Your task to perform on an android device: change alarm snooze length Image 0: 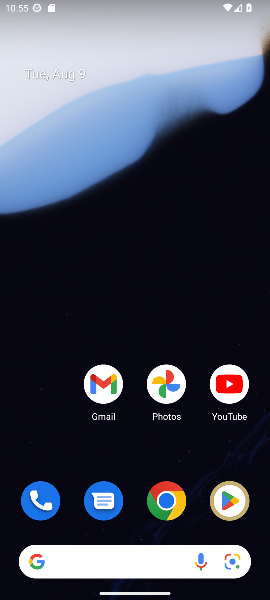
Step 0: drag from (135, 414) to (135, 39)
Your task to perform on an android device: change alarm snooze length Image 1: 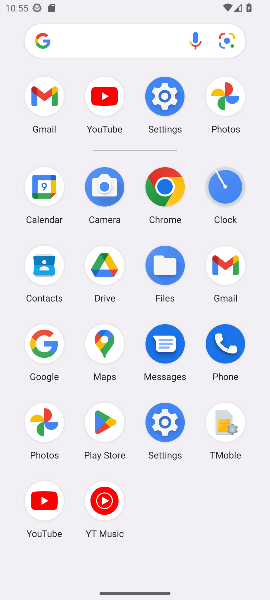
Step 1: click (224, 190)
Your task to perform on an android device: change alarm snooze length Image 2: 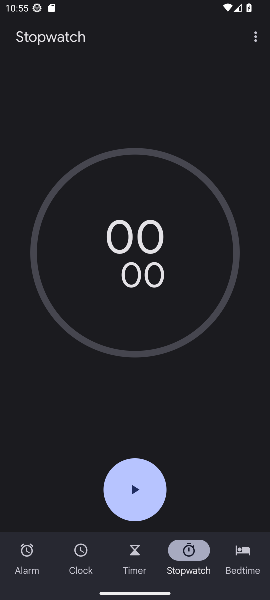
Step 2: click (257, 42)
Your task to perform on an android device: change alarm snooze length Image 3: 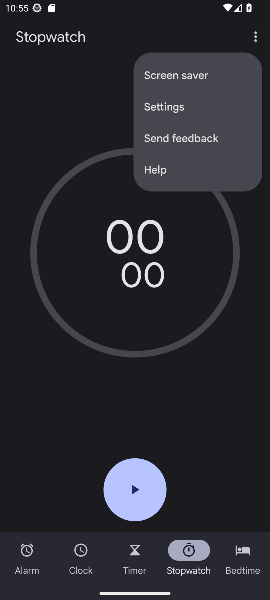
Step 3: click (169, 105)
Your task to perform on an android device: change alarm snooze length Image 4: 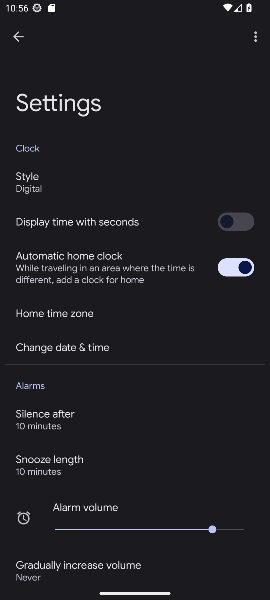
Step 4: click (72, 472)
Your task to perform on an android device: change alarm snooze length Image 5: 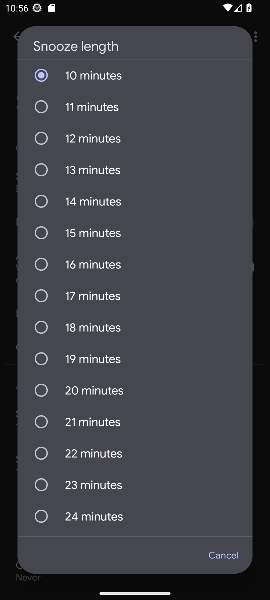
Step 5: click (44, 140)
Your task to perform on an android device: change alarm snooze length Image 6: 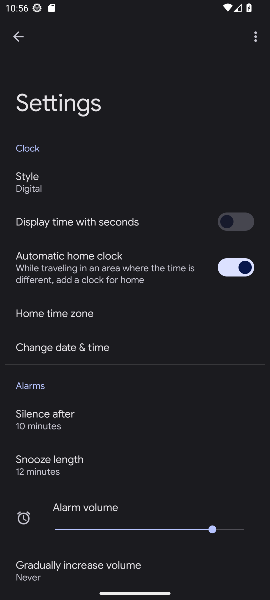
Step 6: task complete